Your task to perform on an android device: What's on my calendar today? Image 0: 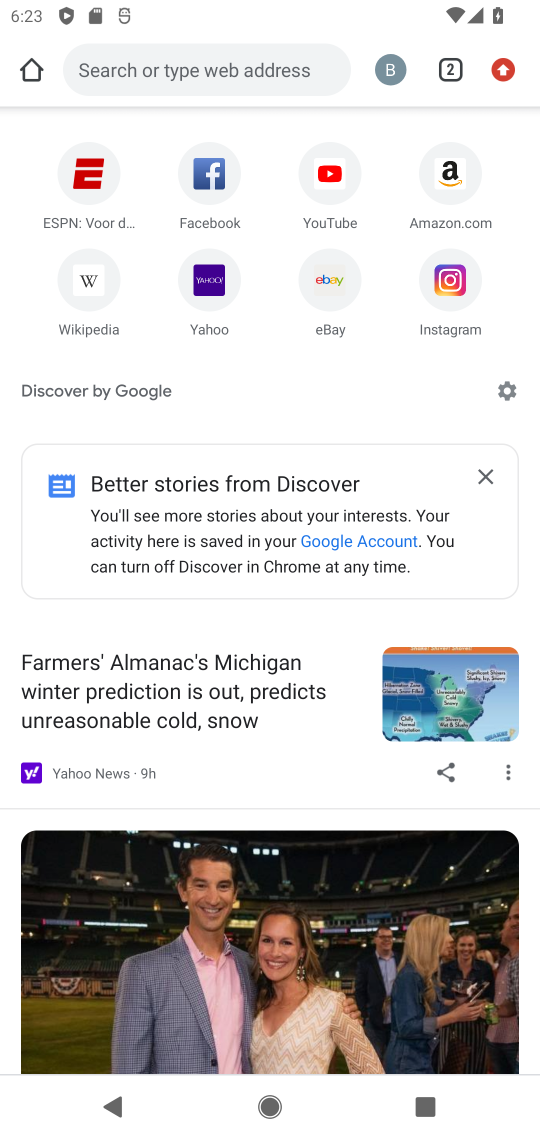
Step 0: press home button
Your task to perform on an android device: What's on my calendar today? Image 1: 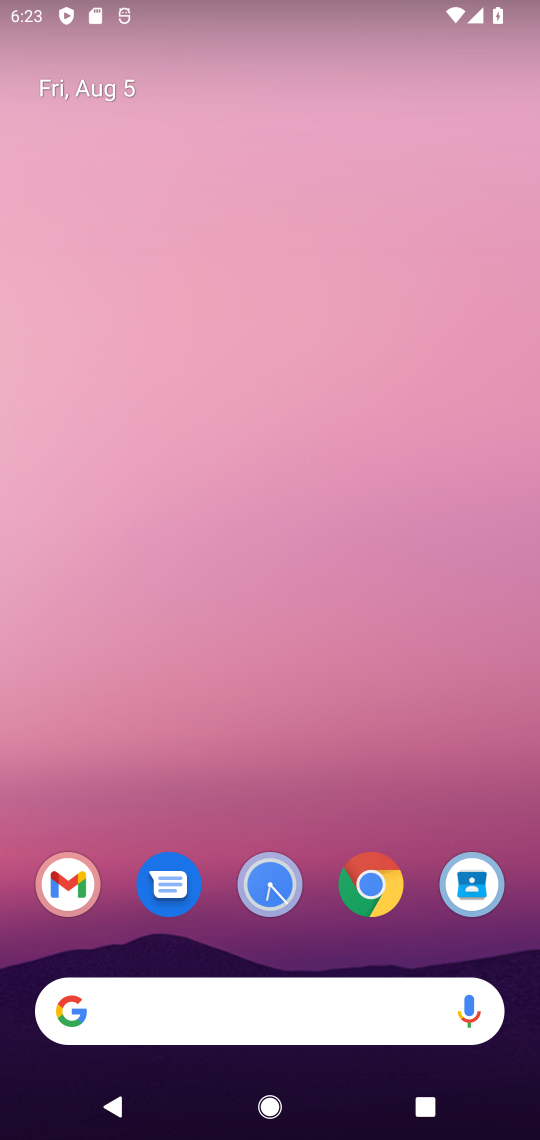
Step 1: drag from (299, 831) to (347, 128)
Your task to perform on an android device: What's on my calendar today? Image 2: 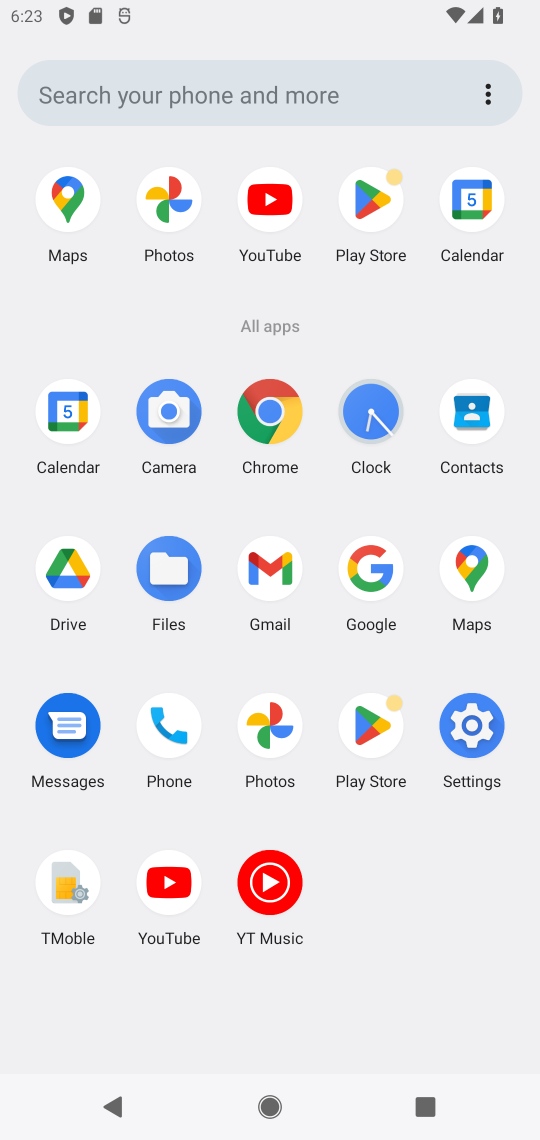
Step 2: click (67, 407)
Your task to perform on an android device: What's on my calendar today? Image 3: 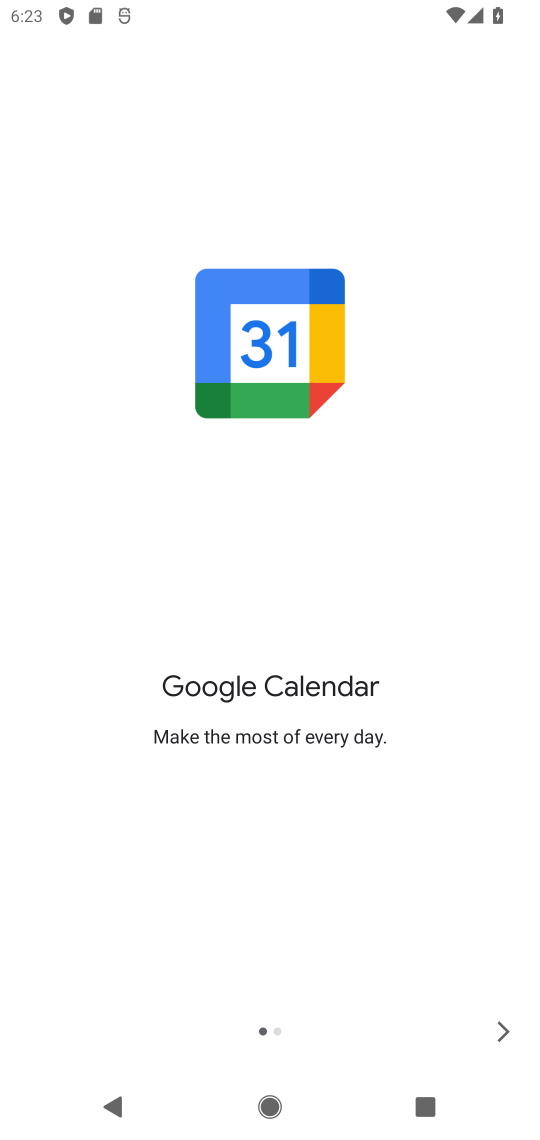
Step 3: click (496, 1018)
Your task to perform on an android device: What's on my calendar today? Image 4: 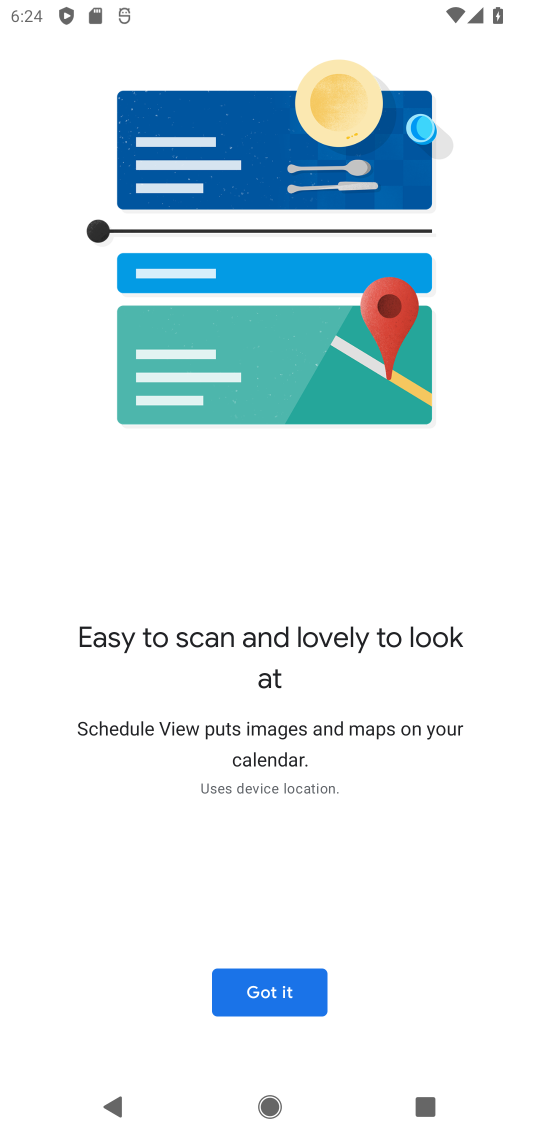
Step 4: click (270, 989)
Your task to perform on an android device: What's on my calendar today? Image 5: 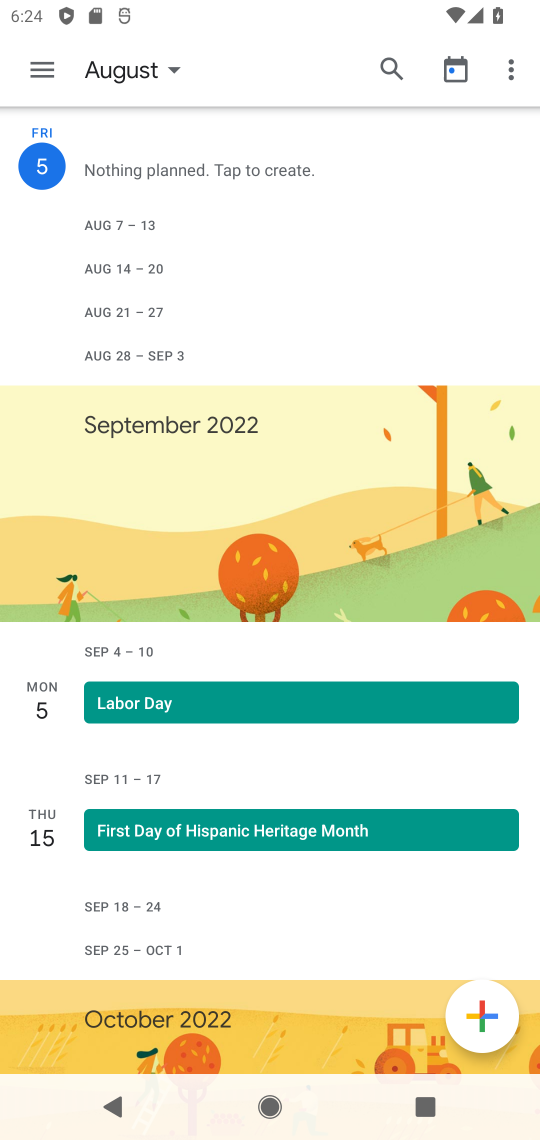
Step 5: click (49, 165)
Your task to perform on an android device: What's on my calendar today? Image 6: 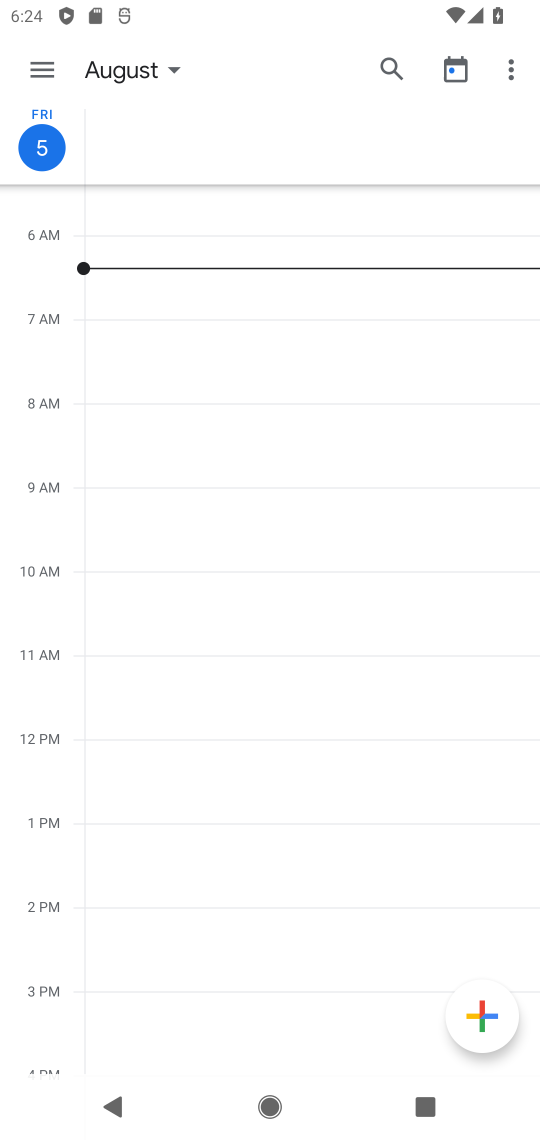
Step 6: task complete